Your task to perform on an android device: Search for jbl flip 4 on bestbuy, select the first entry, and add it to the cart. Image 0: 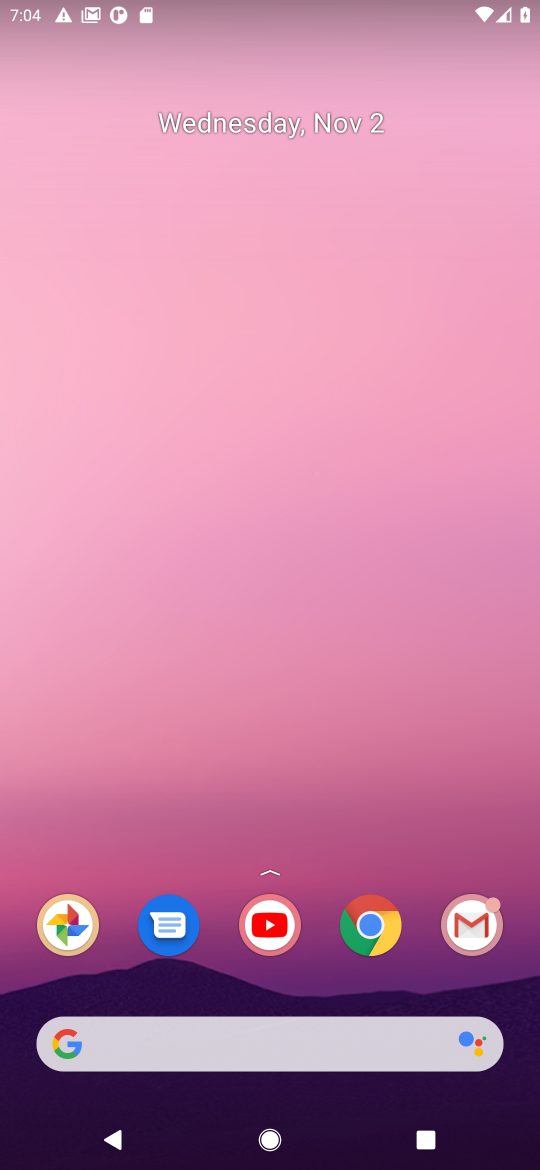
Step 0: press home button
Your task to perform on an android device: Search for jbl flip 4 on bestbuy, select the first entry, and add it to the cart. Image 1: 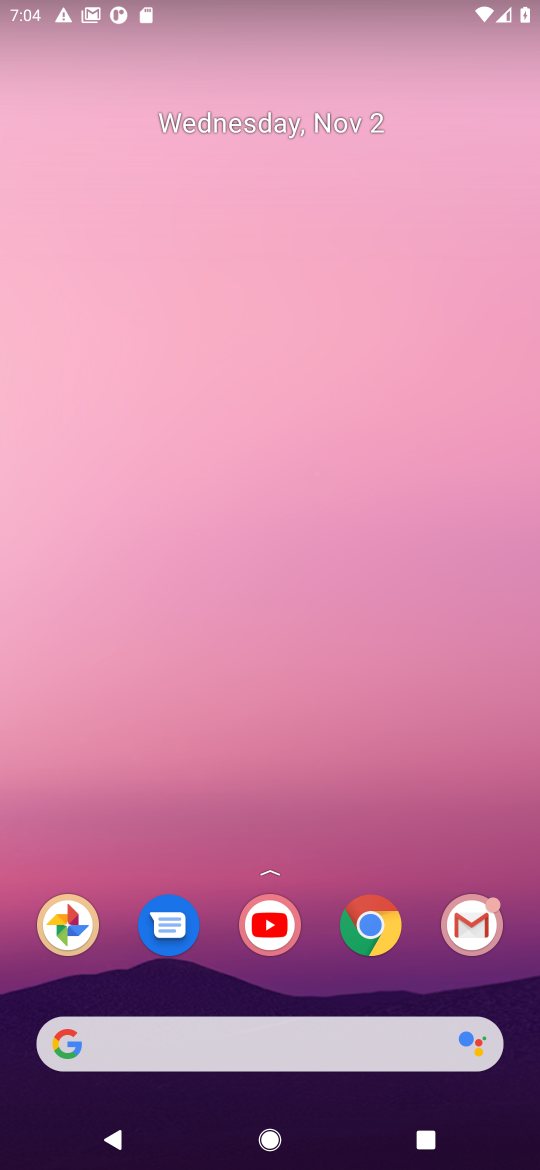
Step 1: click (145, 1039)
Your task to perform on an android device: Search for jbl flip 4 on bestbuy, select the first entry, and add it to the cart. Image 2: 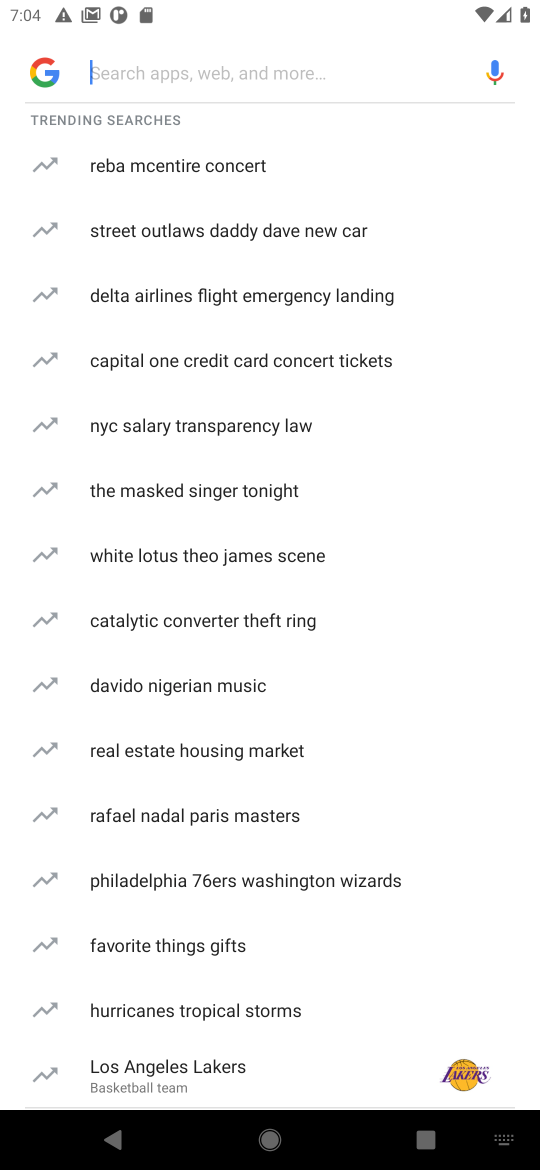
Step 2: type "bestbuy"
Your task to perform on an android device: Search for jbl flip 4 on bestbuy, select the first entry, and add it to the cart. Image 3: 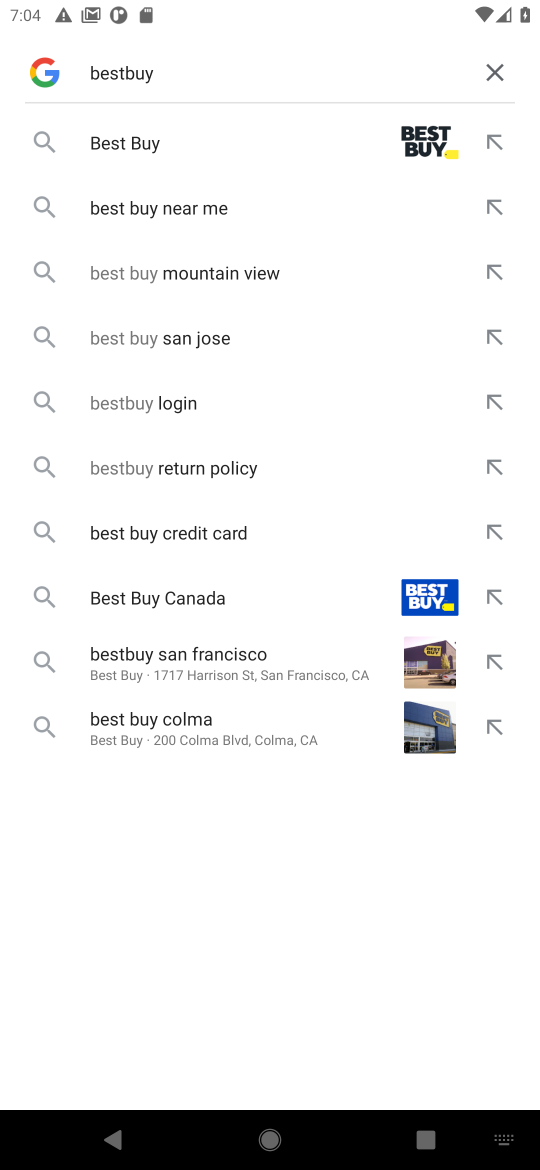
Step 3: press enter
Your task to perform on an android device: Search for jbl flip 4 on bestbuy, select the first entry, and add it to the cart. Image 4: 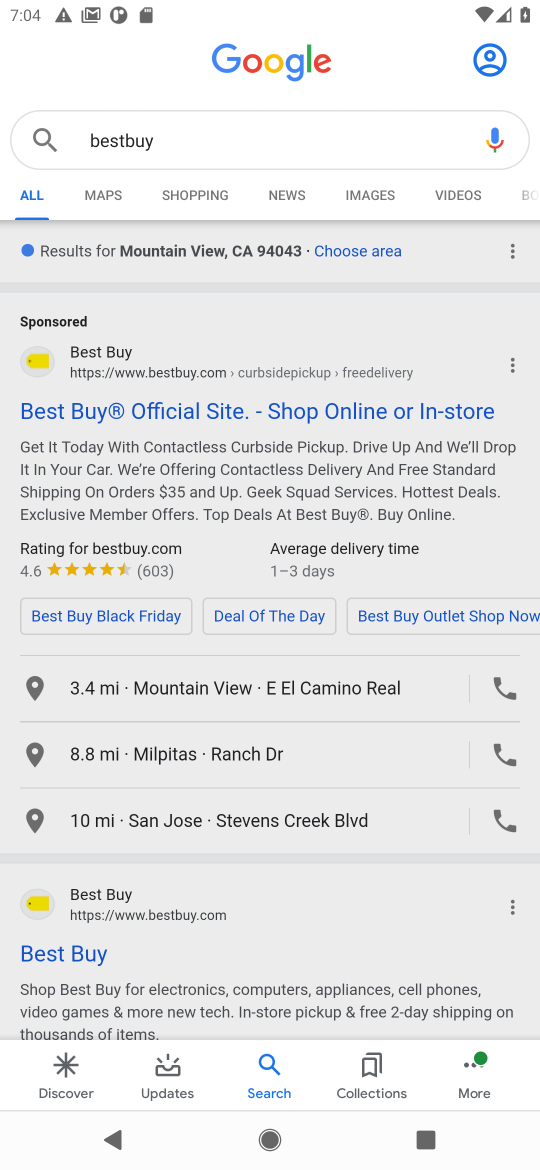
Step 4: click (174, 413)
Your task to perform on an android device: Search for jbl flip 4 on bestbuy, select the first entry, and add it to the cart. Image 5: 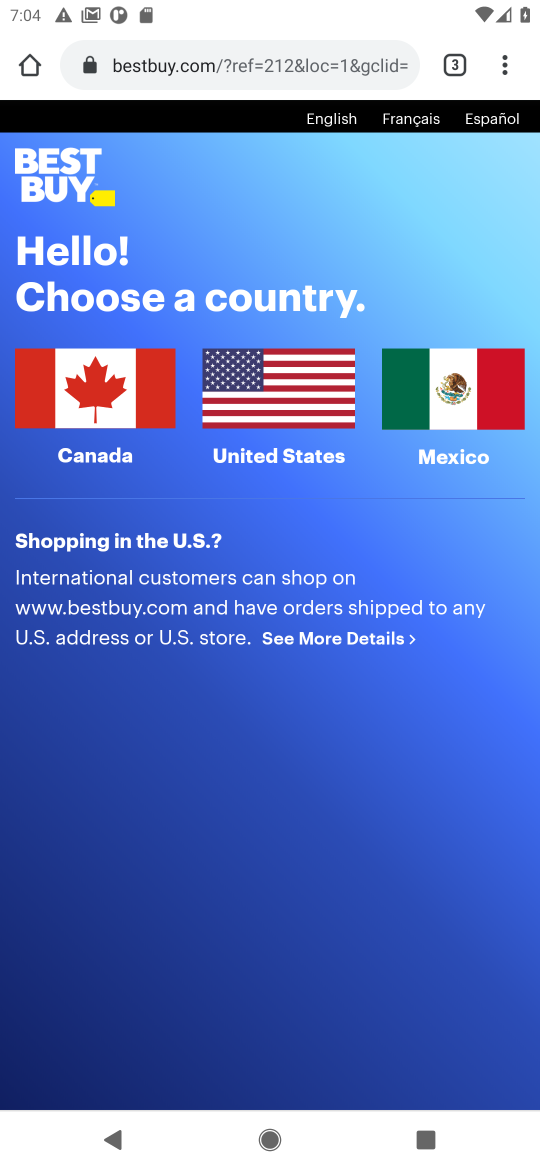
Step 5: click (75, 396)
Your task to perform on an android device: Search for jbl flip 4 on bestbuy, select the first entry, and add it to the cart. Image 6: 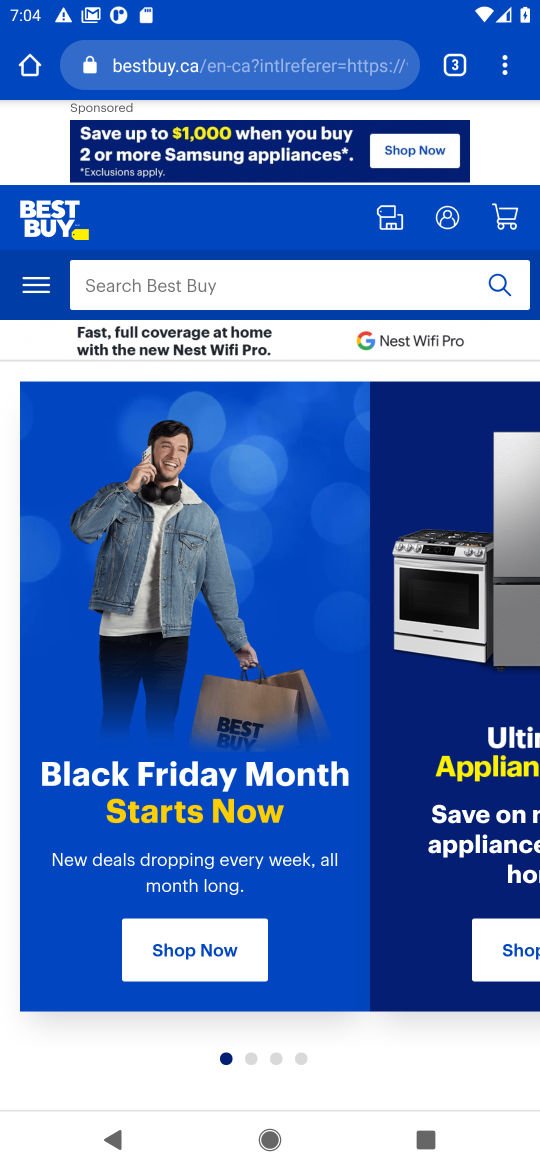
Step 6: click (106, 294)
Your task to perform on an android device: Search for jbl flip 4 on bestbuy, select the first entry, and add it to the cart. Image 7: 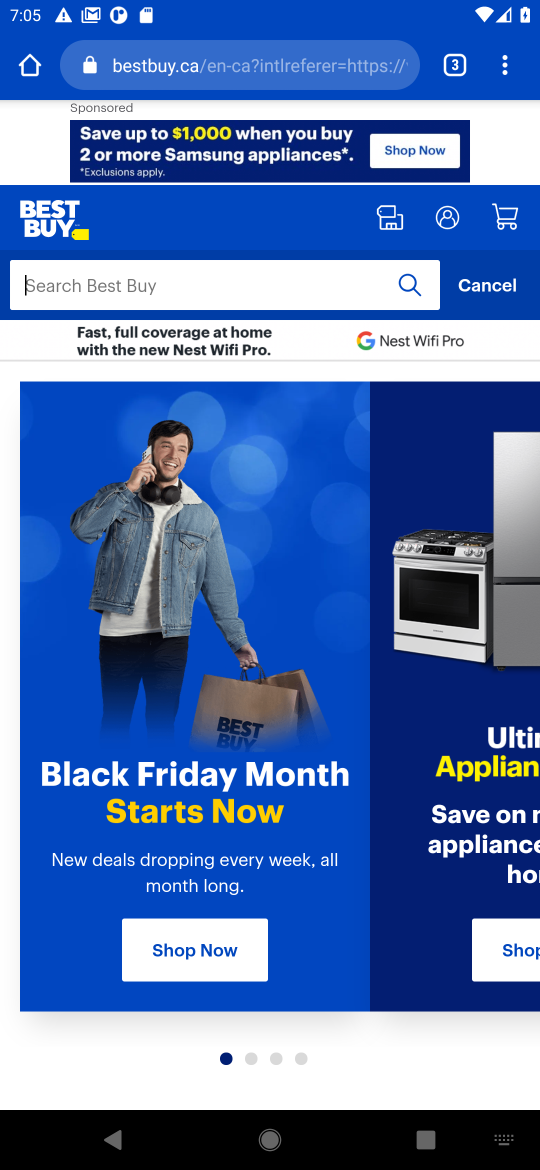
Step 7: press enter
Your task to perform on an android device: Search for jbl flip 4 on bestbuy, select the first entry, and add it to the cart. Image 8: 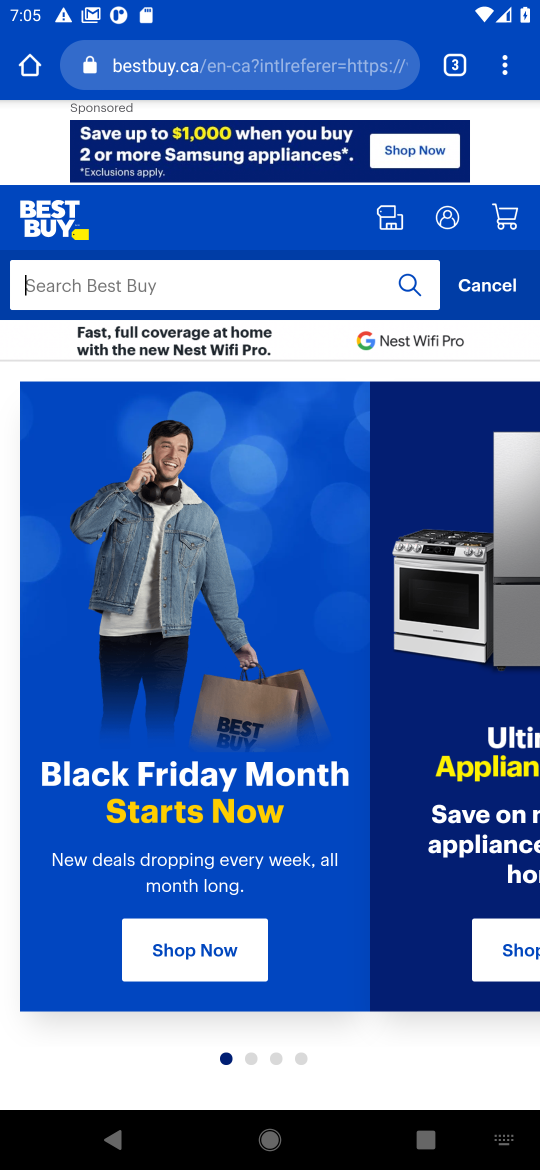
Step 8: type "jbl flip 4"
Your task to perform on an android device: Search for jbl flip 4 on bestbuy, select the first entry, and add it to the cart. Image 9: 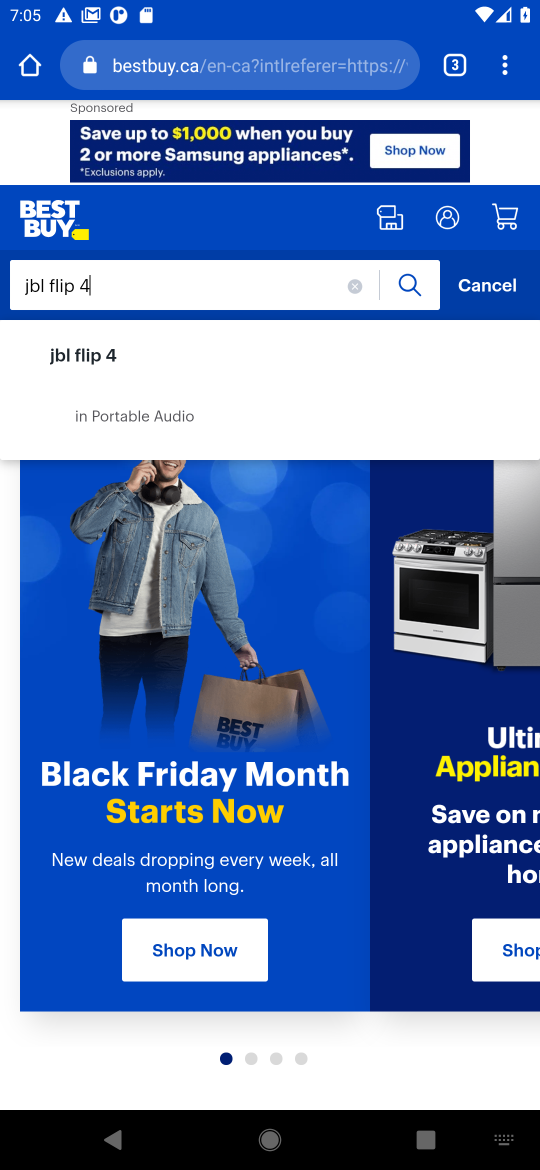
Step 9: press enter
Your task to perform on an android device: Search for jbl flip 4 on bestbuy, select the first entry, and add it to the cart. Image 10: 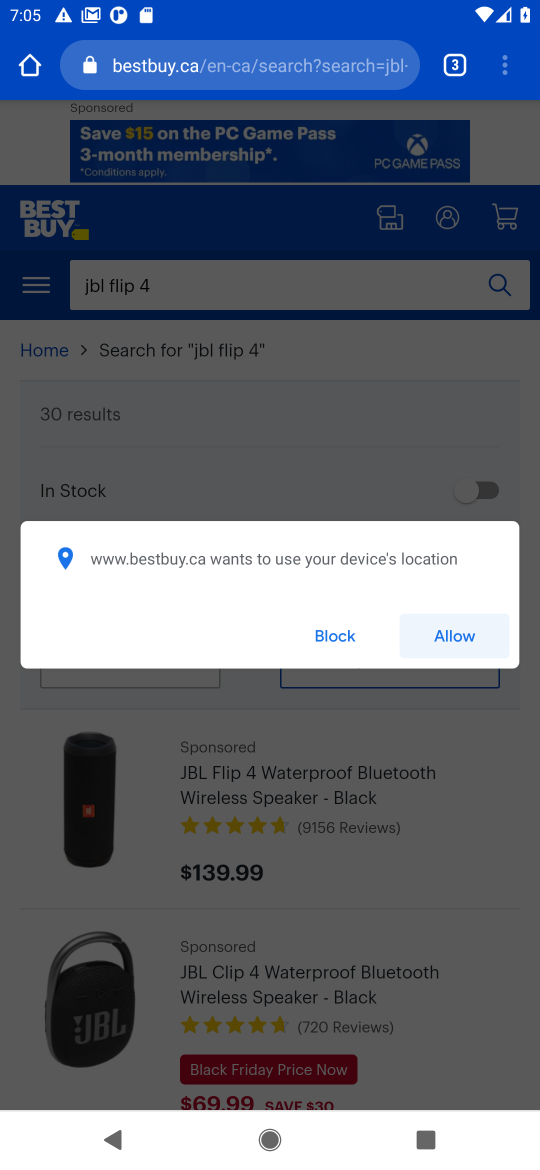
Step 10: click (322, 626)
Your task to perform on an android device: Search for jbl flip 4 on bestbuy, select the first entry, and add it to the cart. Image 11: 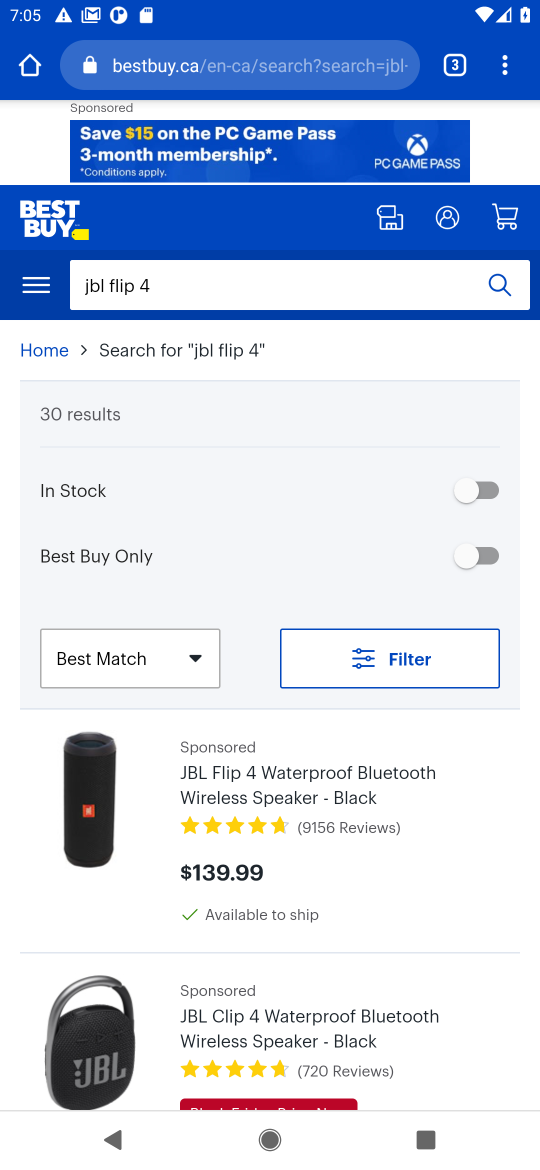
Step 11: click (282, 802)
Your task to perform on an android device: Search for jbl flip 4 on bestbuy, select the first entry, and add it to the cart. Image 12: 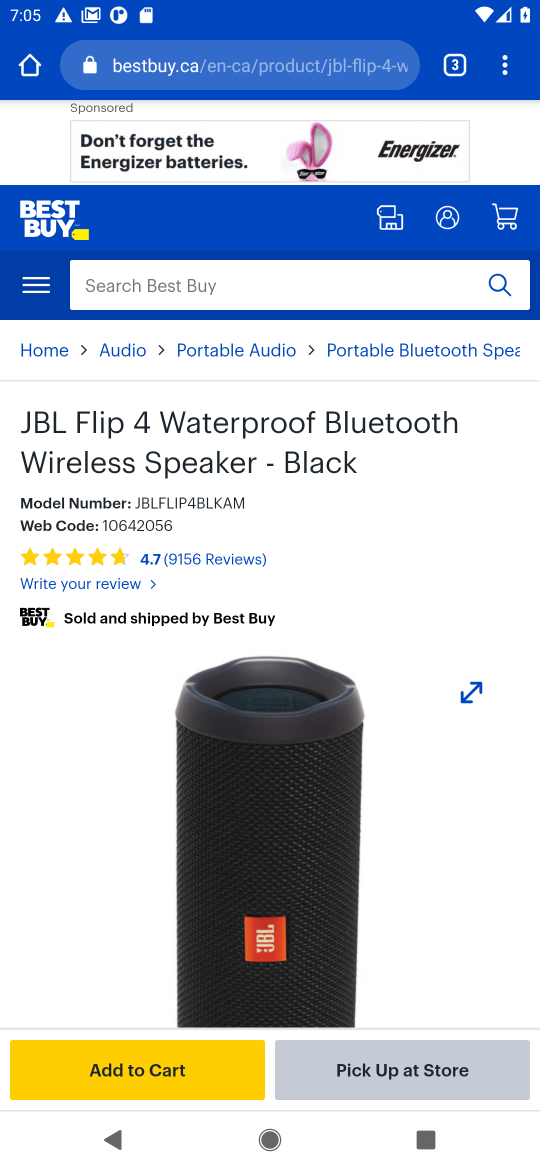
Step 12: click (122, 1082)
Your task to perform on an android device: Search for jbl flip 4 on bestbuy, select the first entry, and add it to the cart. Image 13: 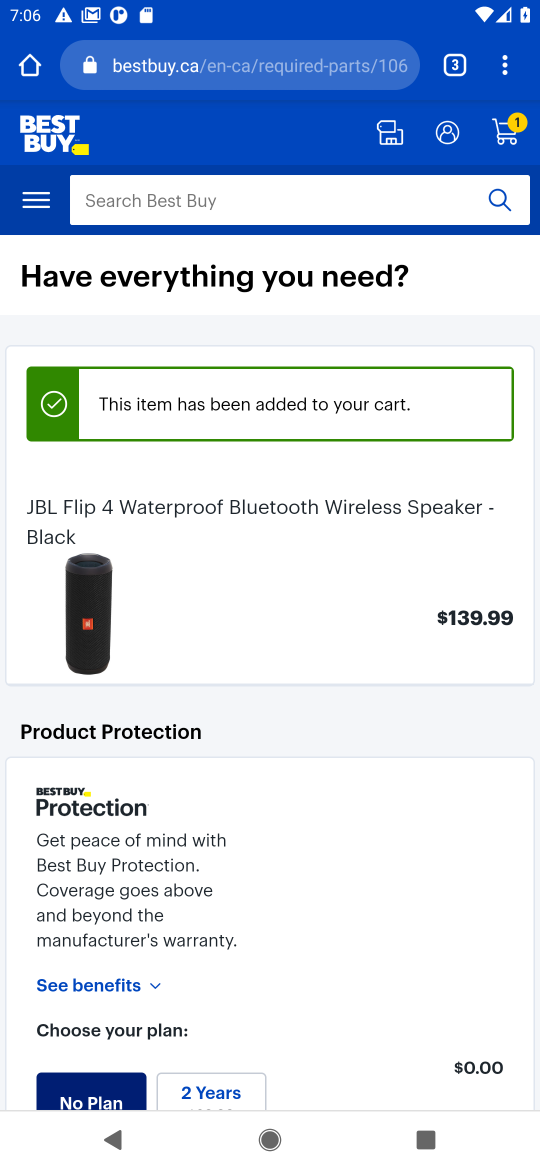
Step 13: task complete